Your task to perform on an android device: change the clock style Image 0: 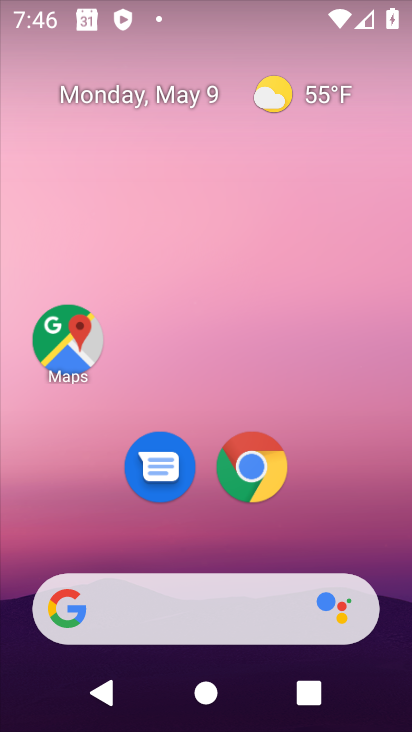
Step 0: drag from (341, 566) to (353, 11)
Your task to perform on an android device: change the clock style Image 1: 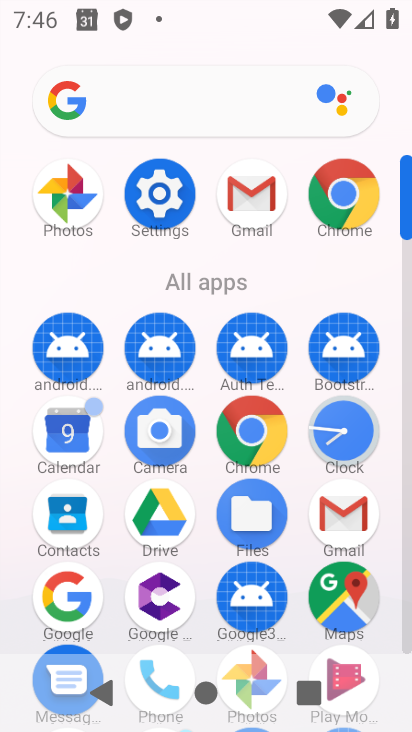
Step 1: click (338, 435)
Your task to perform on an android device: change the clock style Image 2: 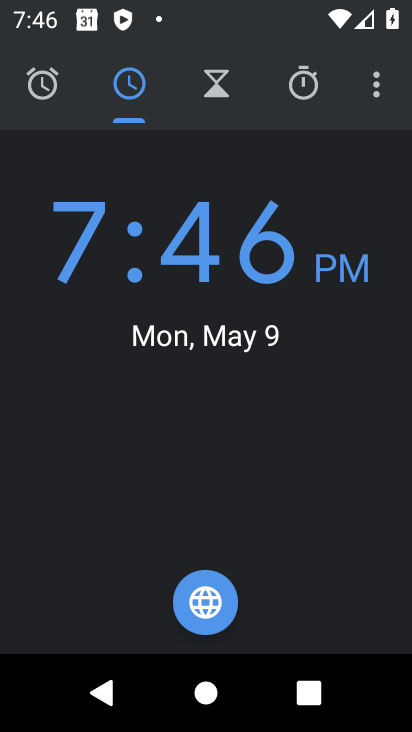
Step 2: click (385, 92)
Your task to perform on an android device: change the clock style Image 3: 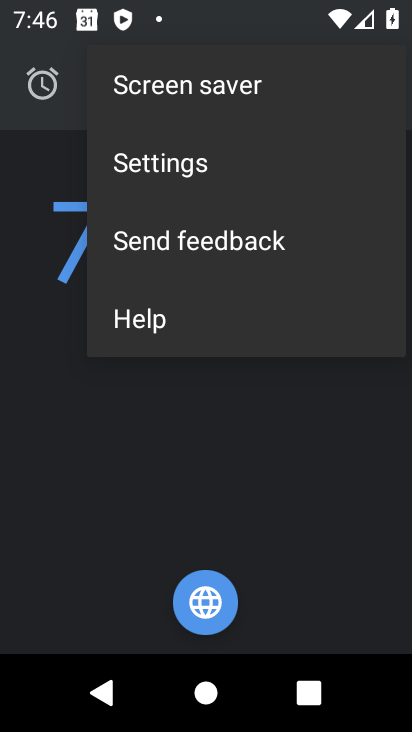
Step 3: click (185, 169)
Your task to perform on an android device: change the clock style Image 4: 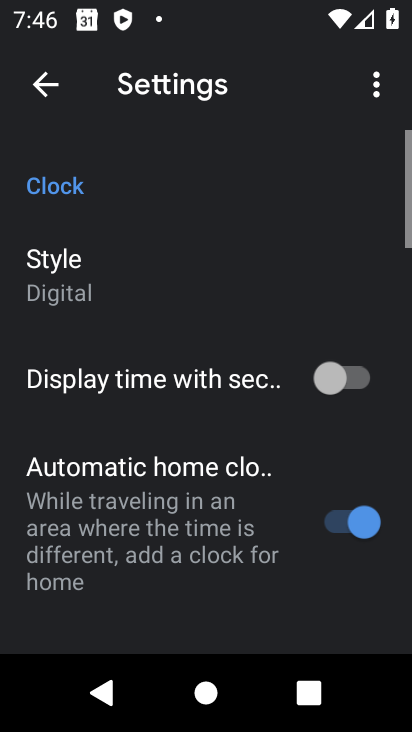
Step 4: click (72, 286)
Your task to perform on an android device: change the clock style Image 5: 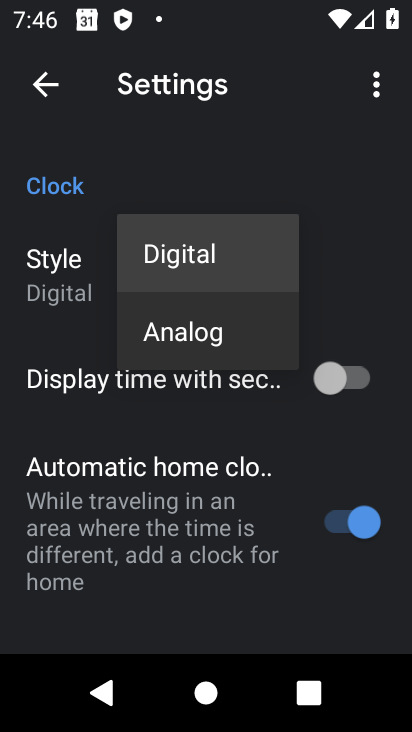
Step 5: click (177, 352)
Your task to perform on an android device: change the clock style Image 6: 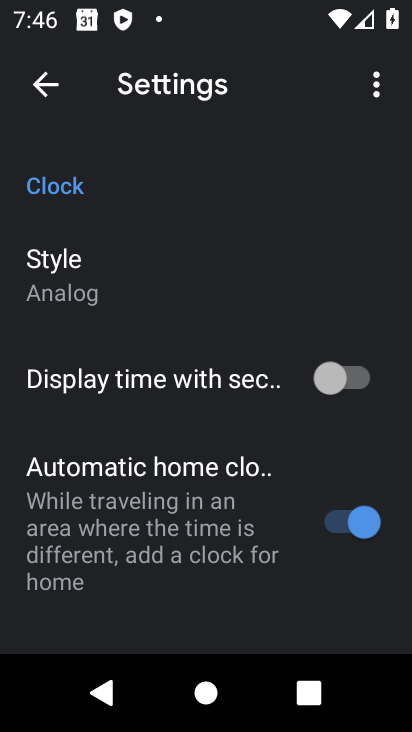
Step 6: task complete